Your task to perform on an android device: change keyboard looks Image 0: 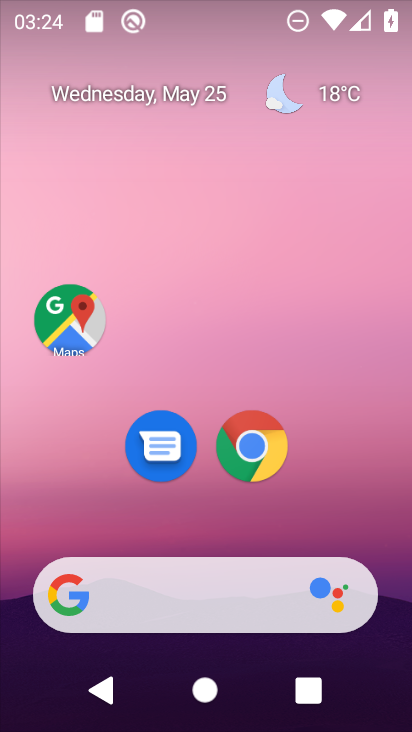
Step 0: drag from (239, 587) to (206, 131)
Your task to perform on an android device: change keyboard looks Image 1: 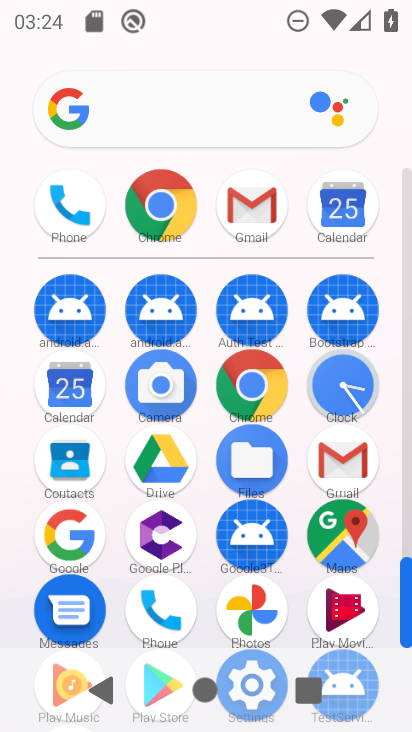
Step 1: drag from (223, 541) to (225, 349)
Your task to perform on an android device: change keyboard looks Image 2: 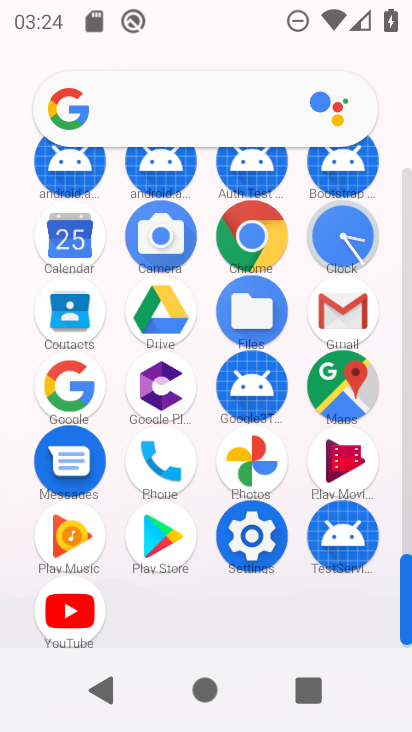
Step 2: click (272, 545)
Your task to perform on an android device: change keyboard looks Image 3: 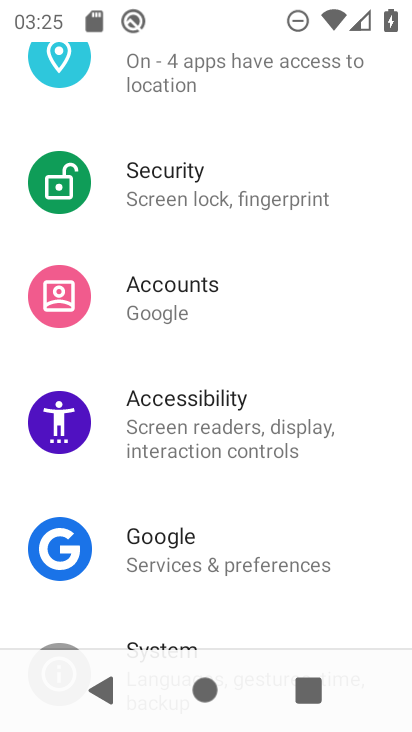
Step 3: drag from (212, 500) to (278, 172)
Your task to perform on an android device: change keyboard looks Image 4: 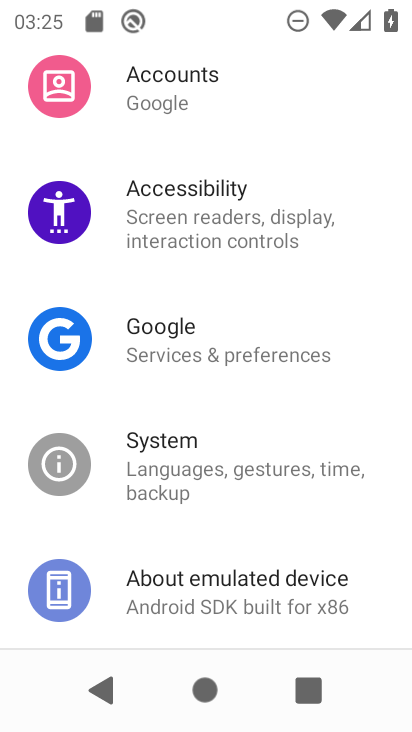
Step 4: click (199, 462)
Your task to perform on an android device: change keyboard looks Image 5: 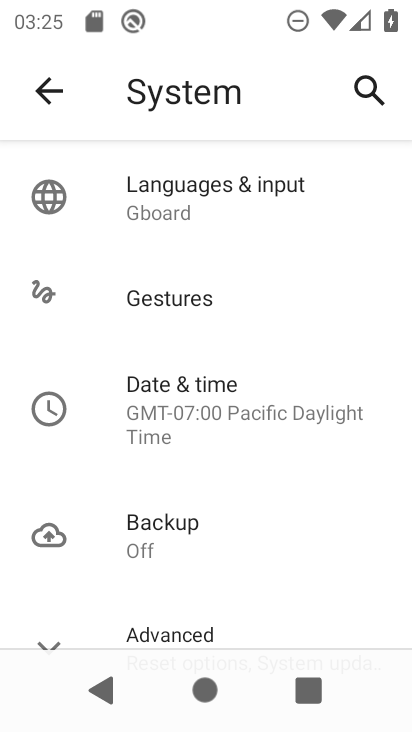
Step 5: click (188, 195)
Your task to perform on an android device: change keyboard looks Image 6: 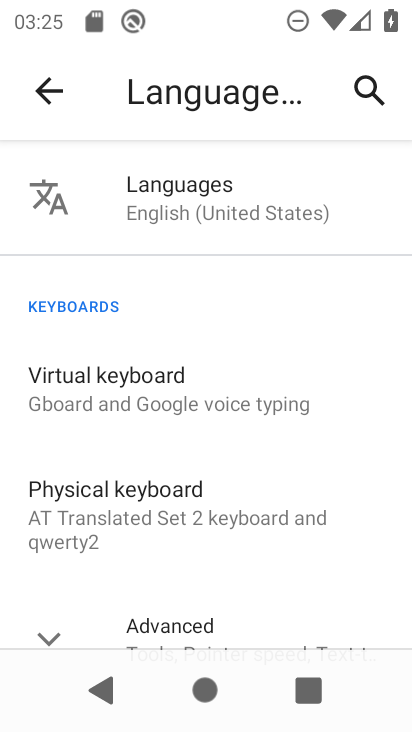
Step 6: click (181, 410)
Your task to perform on an android device: change keyboard looks Image 7: 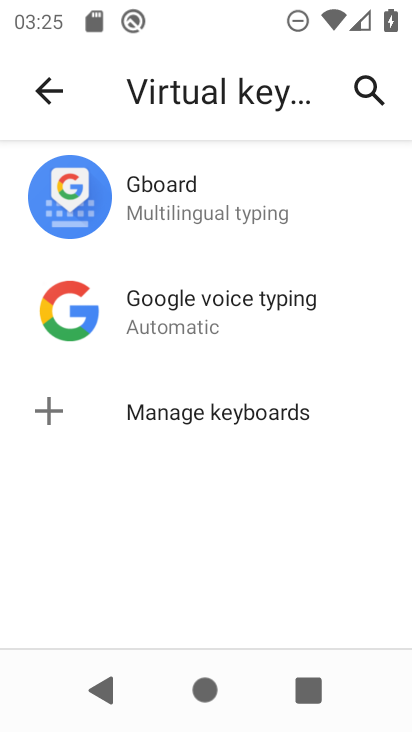
Step 7: click (186, 210)
Your task to perform on an android device: change keyboard looks Image 8: 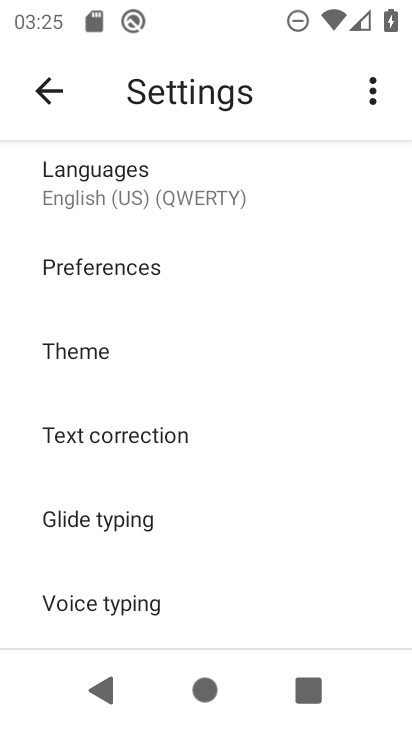
Step 8: drag from (136, 581) to (157, 225)
Your task to perform on an android device: change keyboard looks Image 9: 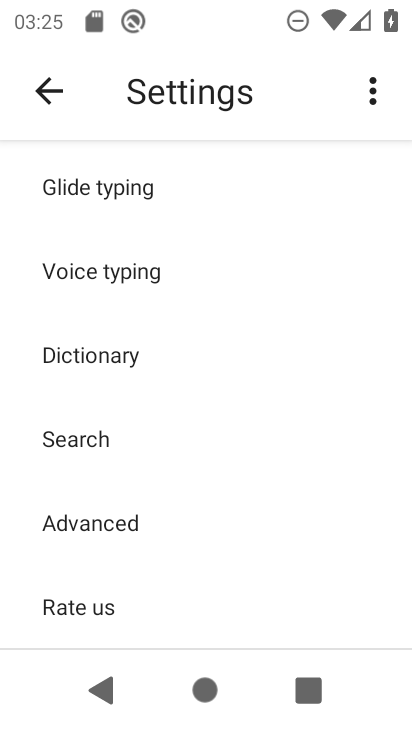
Step 9: drag from (157, 225) to (185, 632)
Your task to perform on an android device: change keyboard looks Image 10: 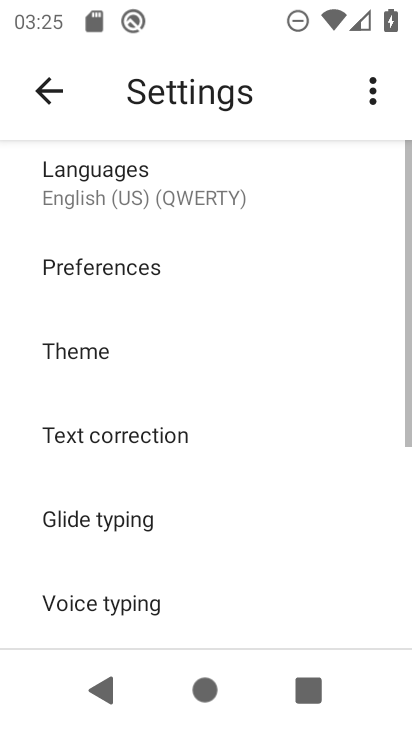
Step 10: click (128, 314)
Your task to perform on an android device: change keyboard looks Image 11: 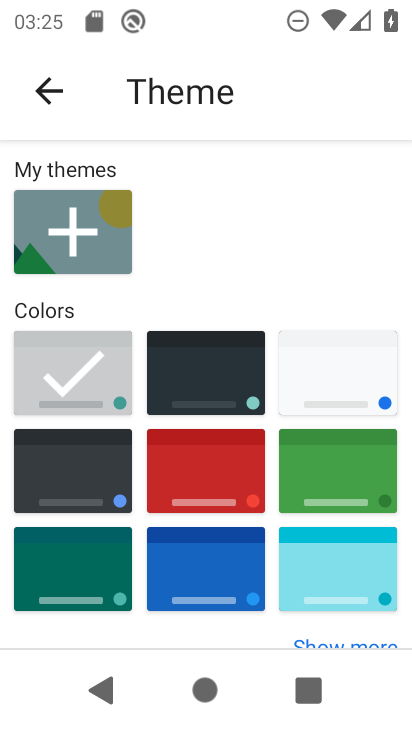
Step 11: click (327, 390)
Your task to perform on an android device: change keyboard looks Image 12: 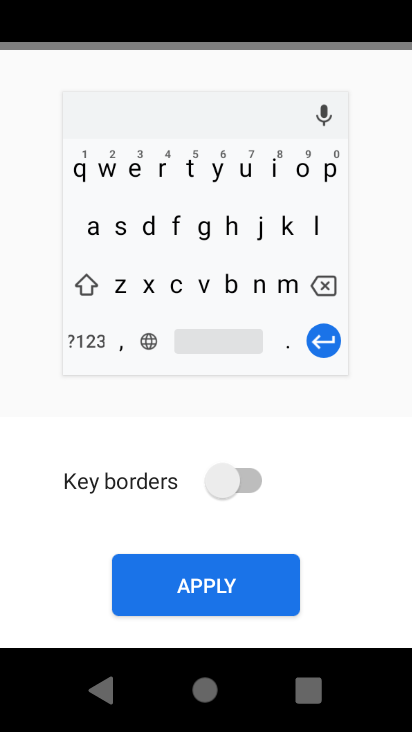
Step 12: click (258, 466)
Your task to perform on an android device: change keyboard looks Image 13: 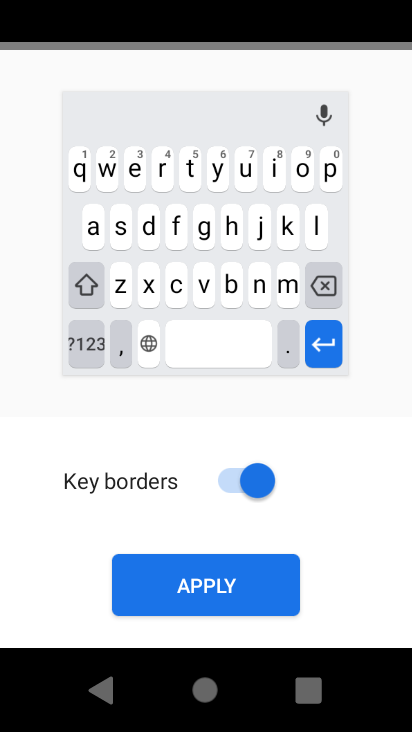
Step 13: click (233, 563)
Your task to perform on an android device: change keyboard looks Image 14: 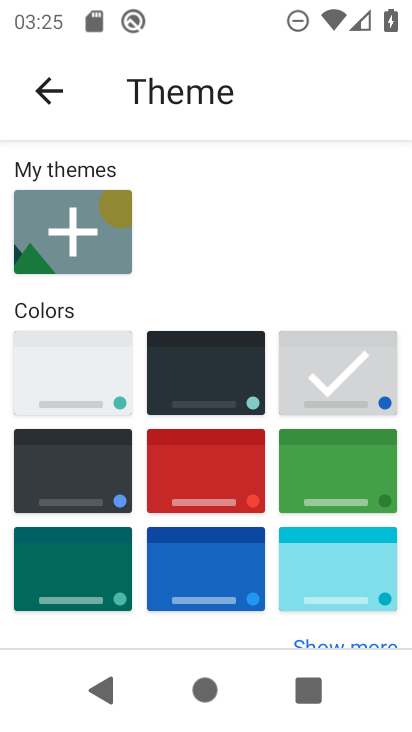
Step 14: task complete